Your task to perform on an android device: toggle airplane mode Image 0: 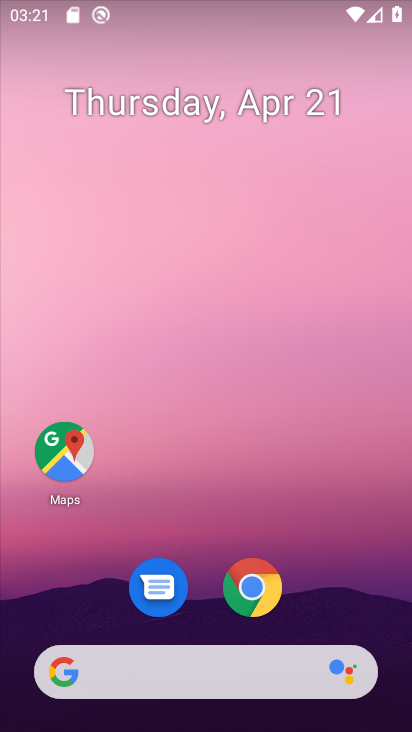
Step 0: drag from (346, 596) to (355, 203)
Your task to perform on an android device: toggle airplane mode Image 1: 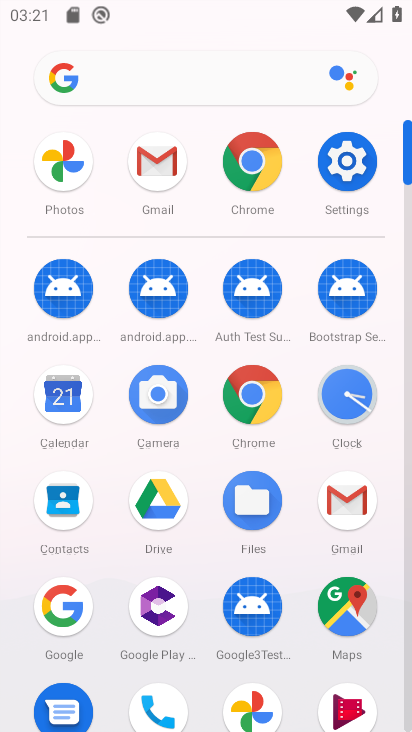
Step 1: click (352, 181)
Your task to perform on an android device: toggle airplane mode Image 2: 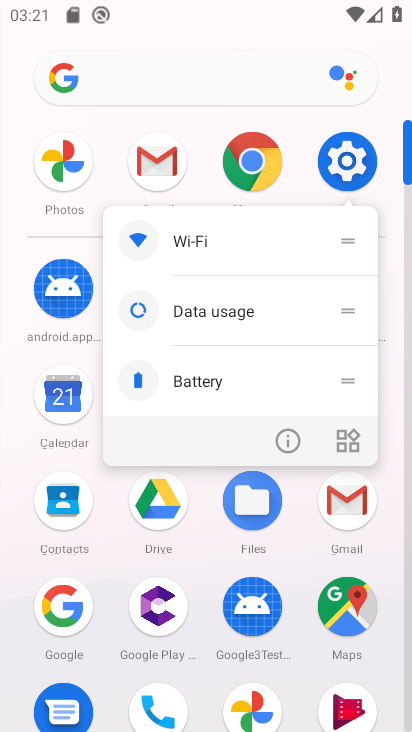
Step 2: click (371, 165)
Your task to perform on an android device: toggle airplane mode Image 3: 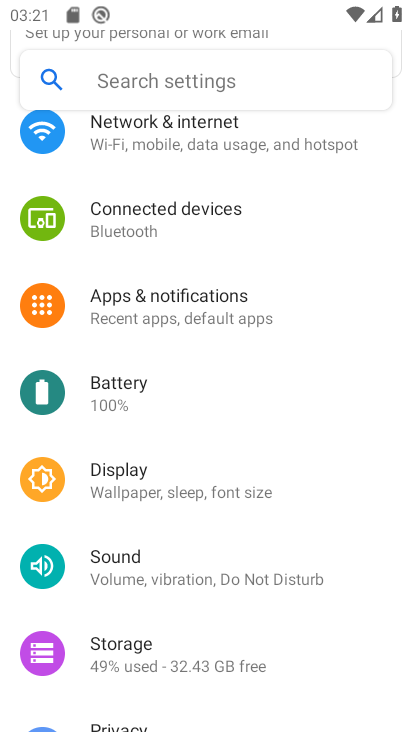
Step 3: drag from (365, 634) to (367, 412)
Your task to perform on an android device: toggle airplane mode Image 4: 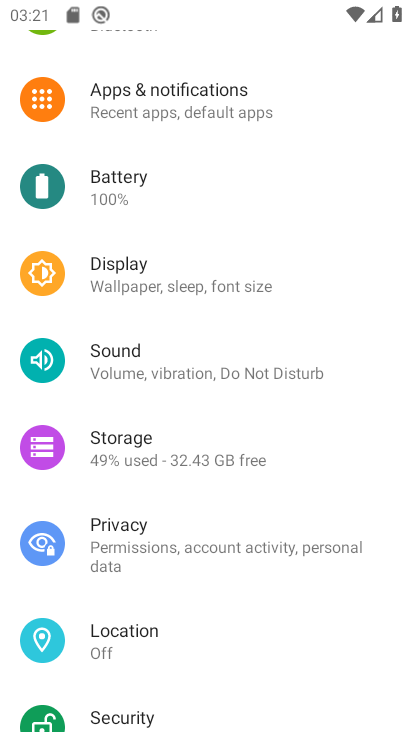
Step 4: drag from (337, 617) to (334, 454)
Your task to perform on an android device: toggle airplane mode Image 5: 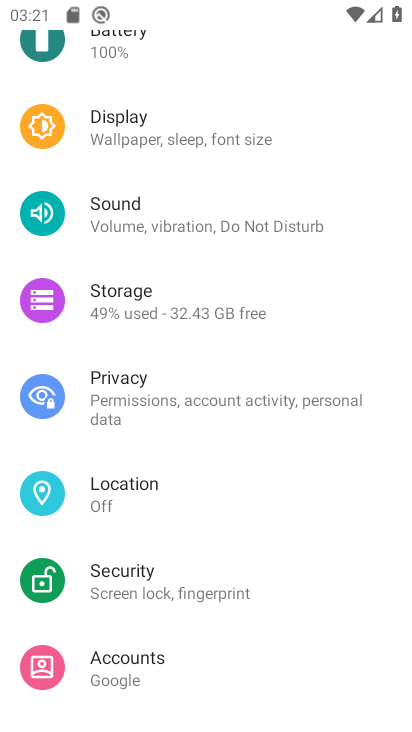
Step 5: drag from (320, 617) to (330, 446)
Your task to perform on an android device: toggle airplane mode Image 6: 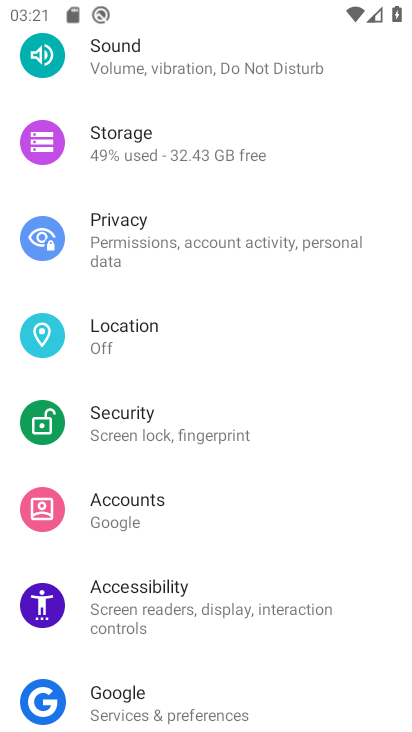
Step 6: drag from (343, 650) to (348, 459)
Your task to perform on an android device: toggle airplane mode Image 7: 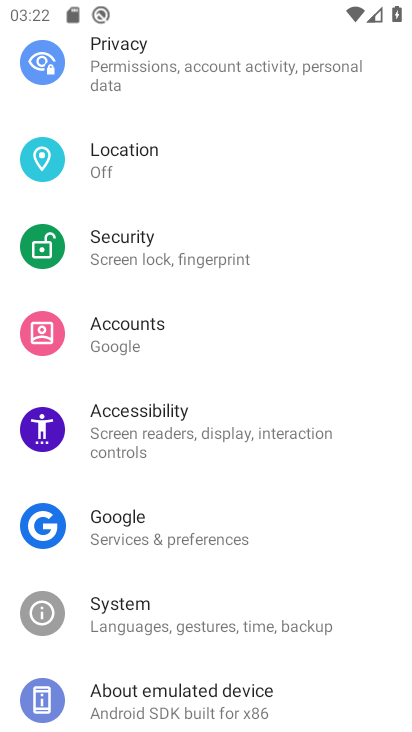
Step 7: drag from (343, 665) to (360, 464)
Your task to perform on an android device: toggle airplane mode Image 8: 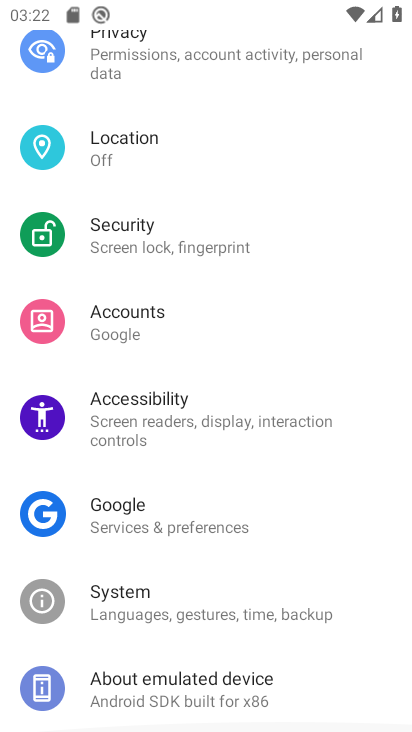
Step 8: drag from (356, 367) to (357, 499)
Your task to perform on an android device: toggle airplane mode Image 9: 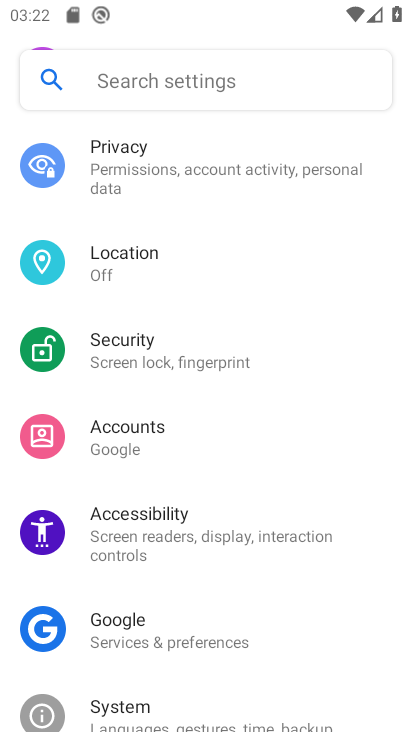
Step 9: drag from (364, 348) to (355, 492)
Your task to perform on an android device: toggle airplane mode Image 10: 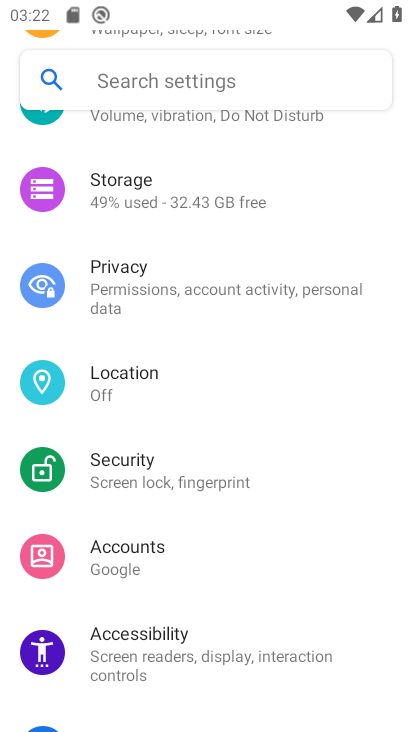
Step 10: drag from (367, 346) to (367, 474)
Your task to perform on an android device: toggle airplane mode Image 11: 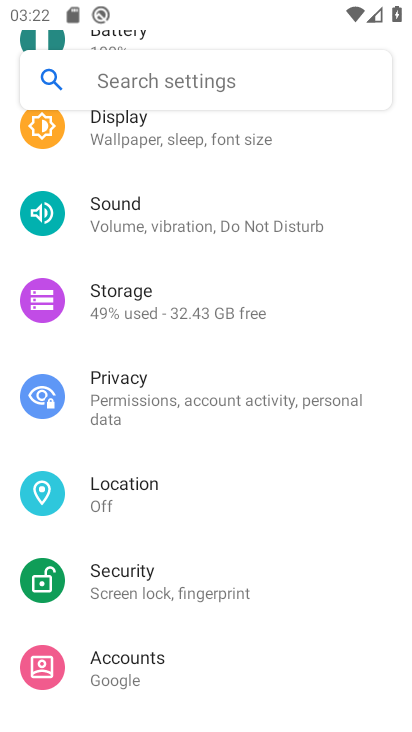
Step 11: drag from (371, 337) to (367, 482)
Your task to perform on an android device: toggle airplane mode Image 12: 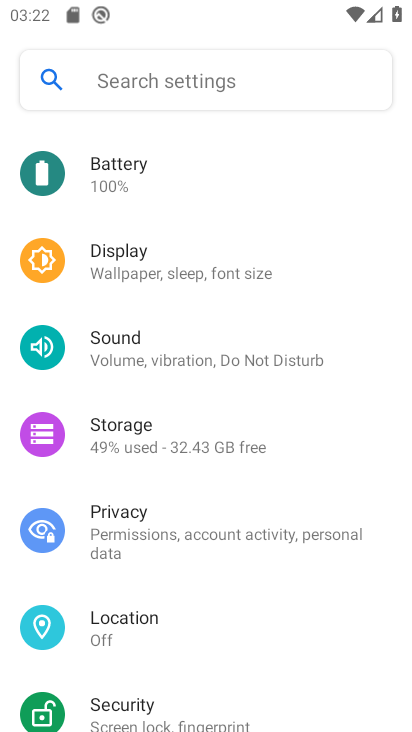
Step 12: drag from (369, 314) to (364, 463)
Your task to perform on an android device: toggle airplane mode Image 13: 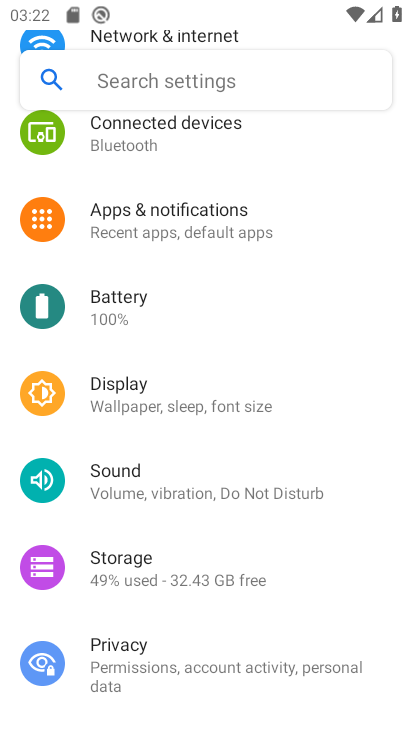
Step 13: drag from (357, 269) to (362, 431)
Your task to perform on an android device: toggle airplane mode Image 14: 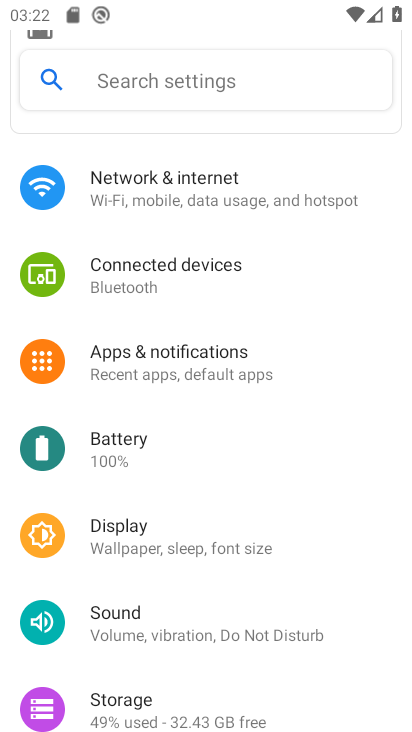
Step 14: drag from (357, 286) to (348, 520)
Your task to perform on an android device: toggle airplane mode Image 15: 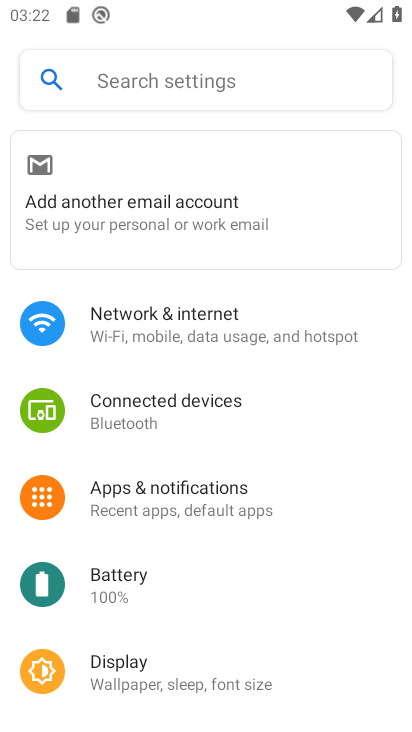
Step 15: click (308, 336)
Your task to perform on an android device: toggle airplane mode Image 16: 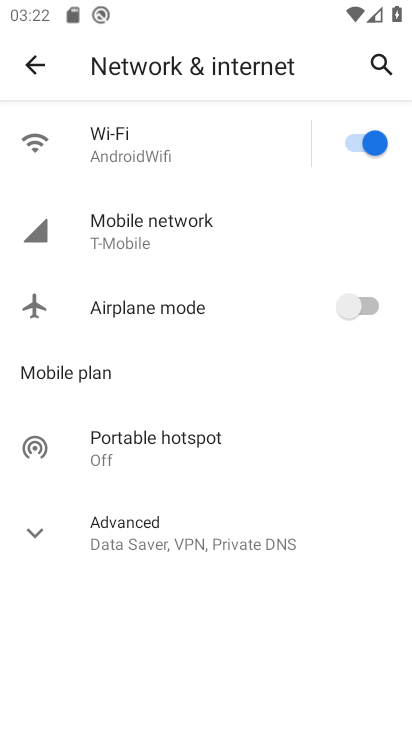
Step 16: click (356, 311)
Your task to perform on an android device: toggle airplane mode Image 17: 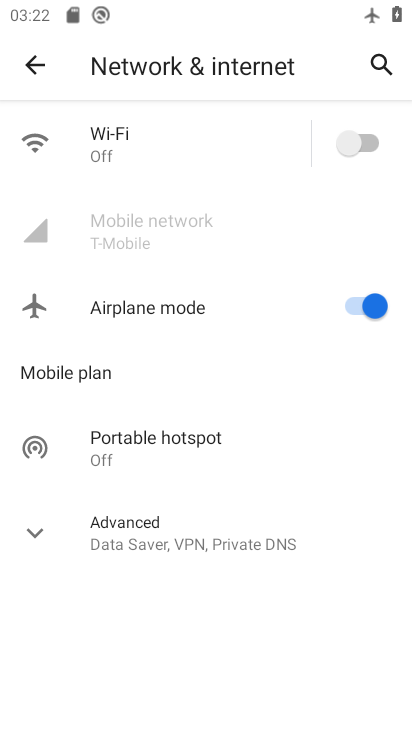
Step 17: task complete